Your task to perform on an android device: Open the phone app and click the voicemail tab. Image 0: 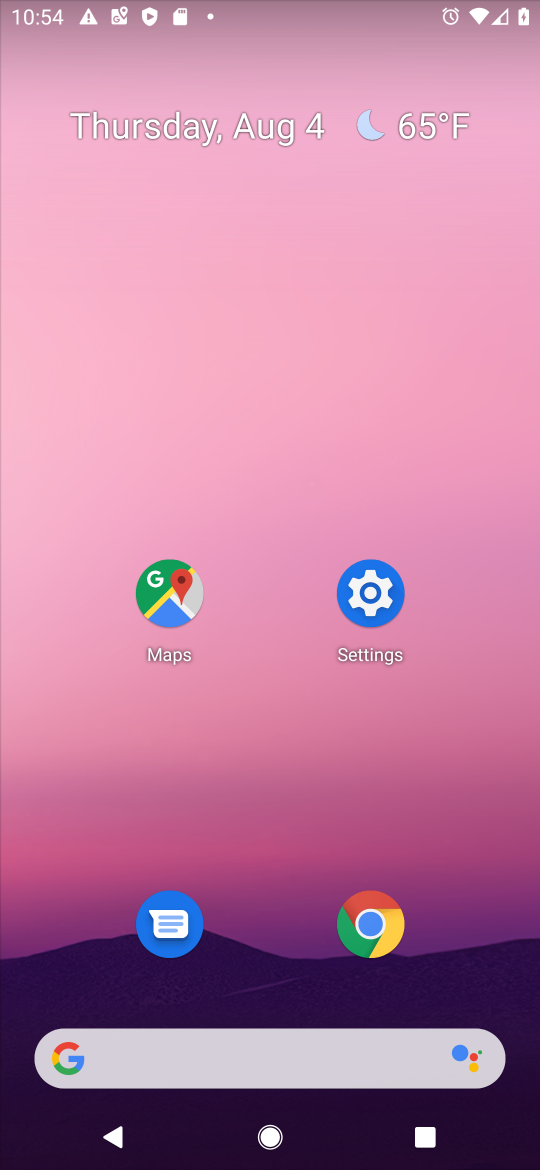
Step 0: press home button
Your task to perform on an android device: Open the phone app and click the voicemail tab. Image 1: 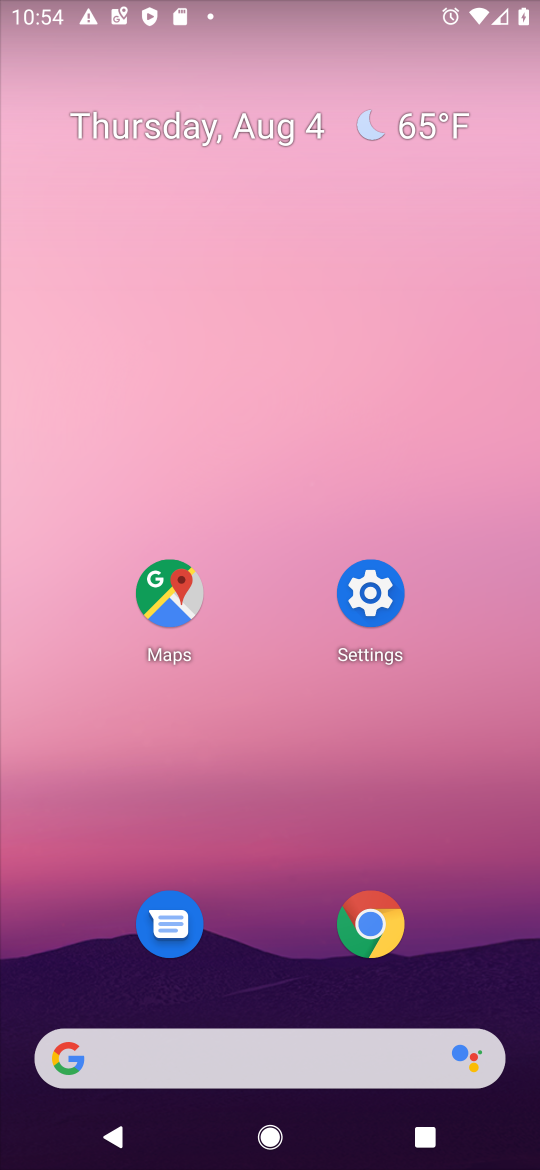
Step 1: drag from (261, 1045) to (498, 161)
Your task to perform on an android device: Open the phone app and click the voicemail tab. Image 2: 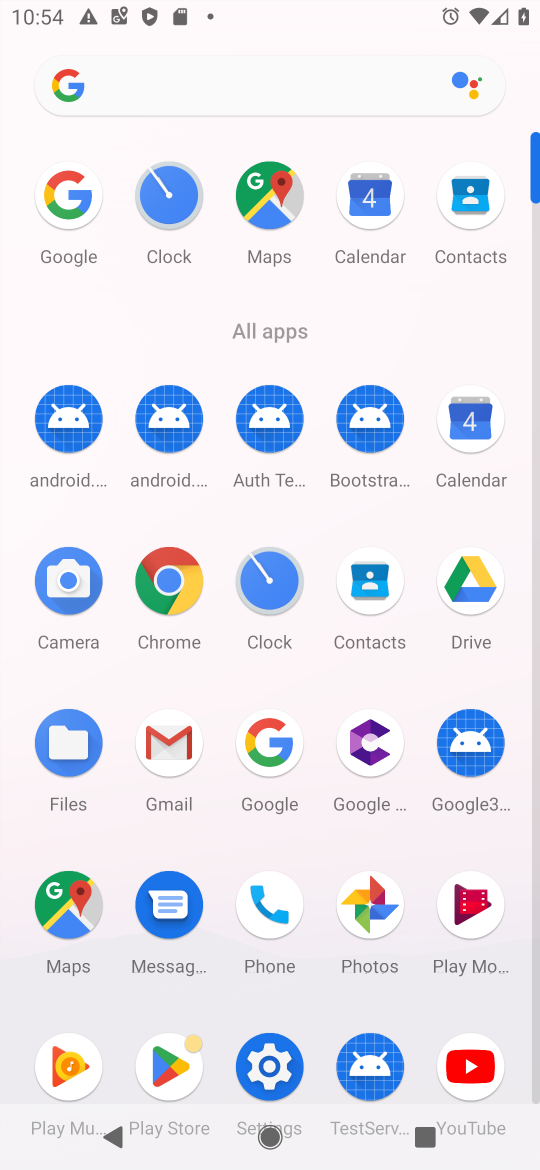
Step 2: click (276, 914)
Your task to perform on an android device: Open the phone app and click the voicemail tab. Image 3: 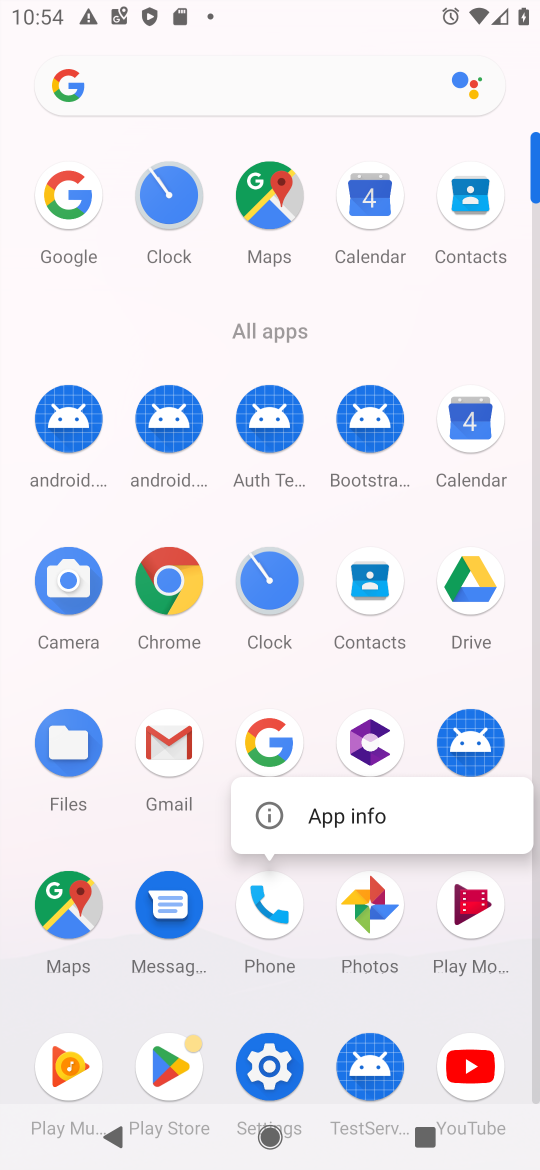
Step 3: click (262, 919)
Your task to perform on an android device: Open the phone app and click the voicemail tab. Image 4: 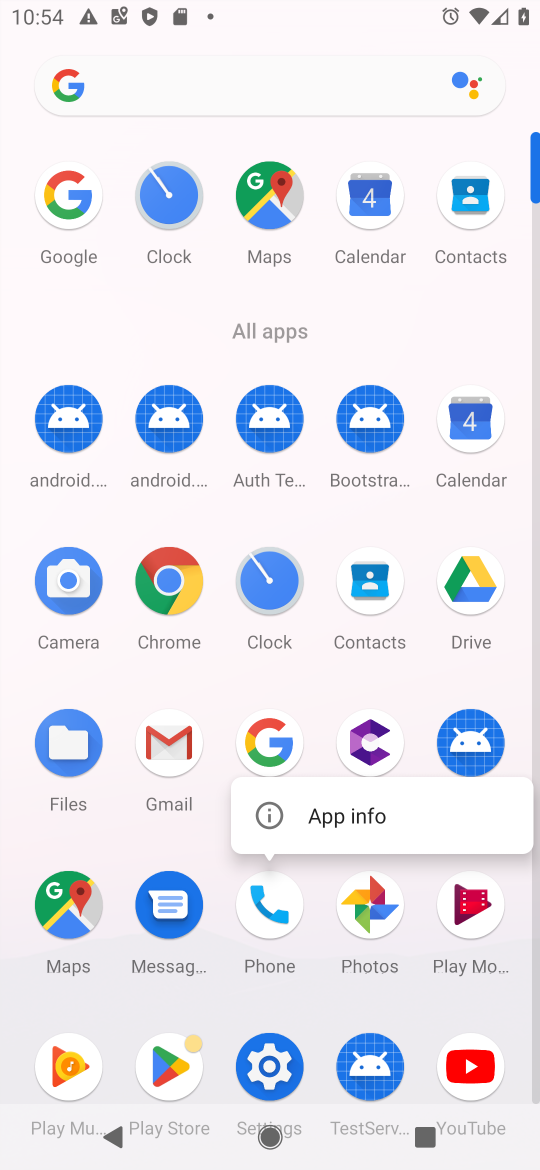
Step 4: click (270, 913)
Your task to perform on an android device: Open the phone app and click the voicemail tab. Image 5: 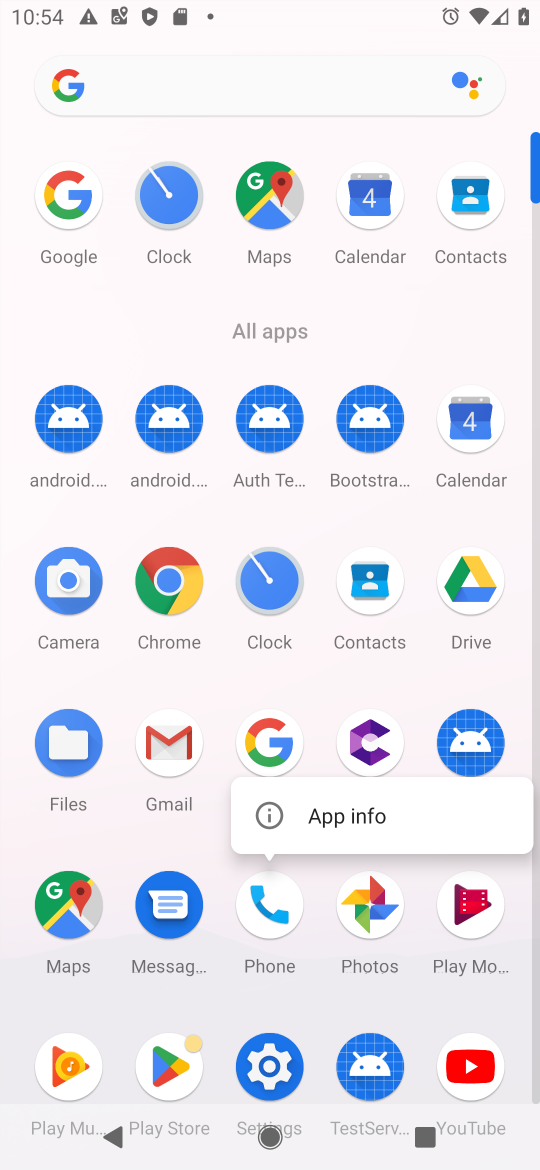
Step 5: click (270, 915)
Your task to perform on an android device: Open the phone app and click the voicemail tab. Image 6: 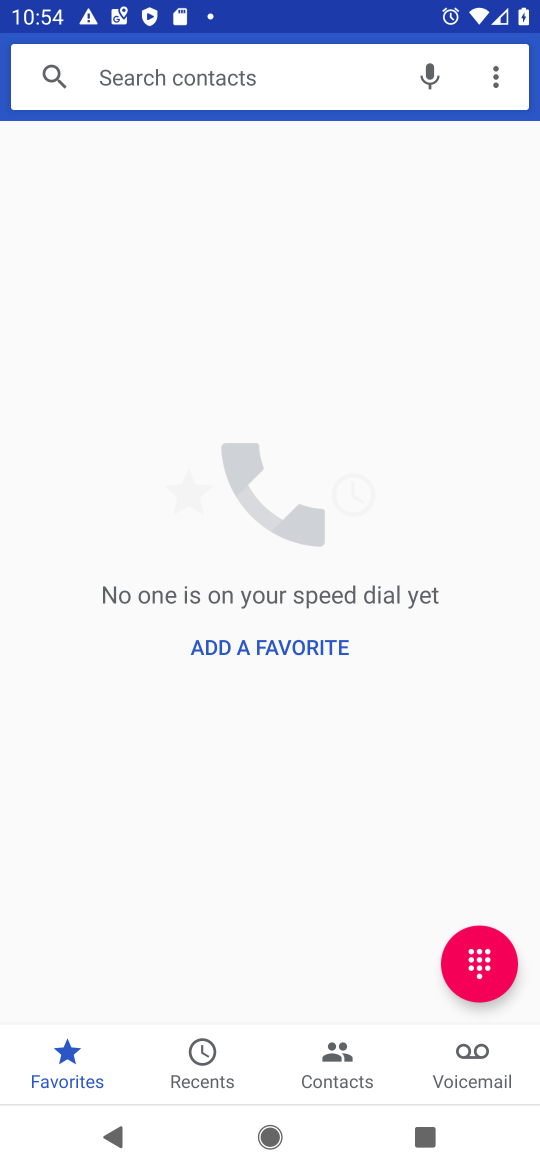
Step 6: click (482, 1065)
Your task to perform on an android device: Open the phone app and click the voicemail tab. Image 7: 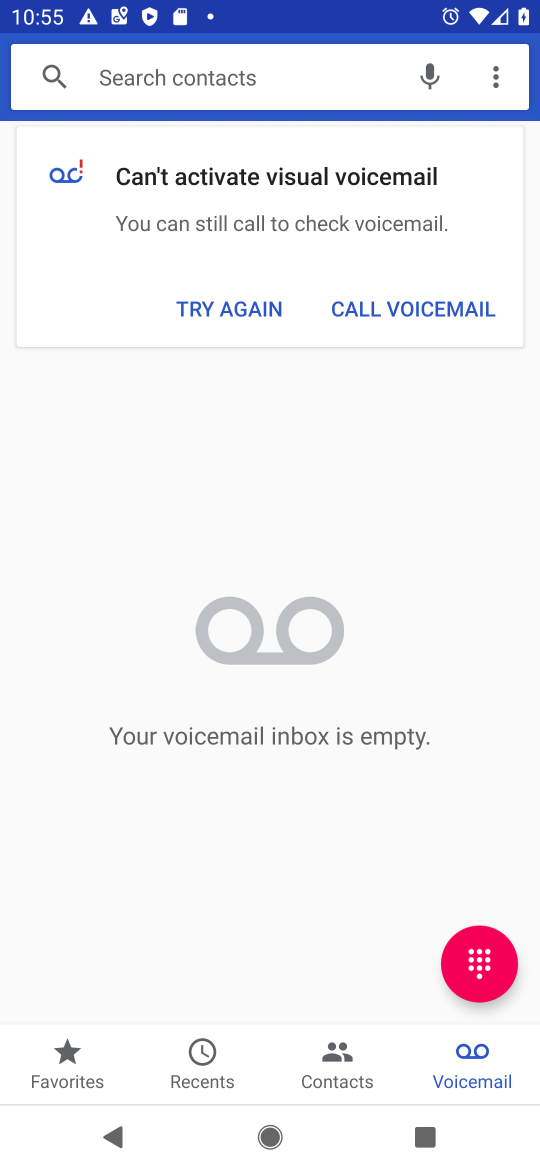
Step 7: task complete